Your task to perform on an android device: open chrome and create a bookmark for the current page Image 0: 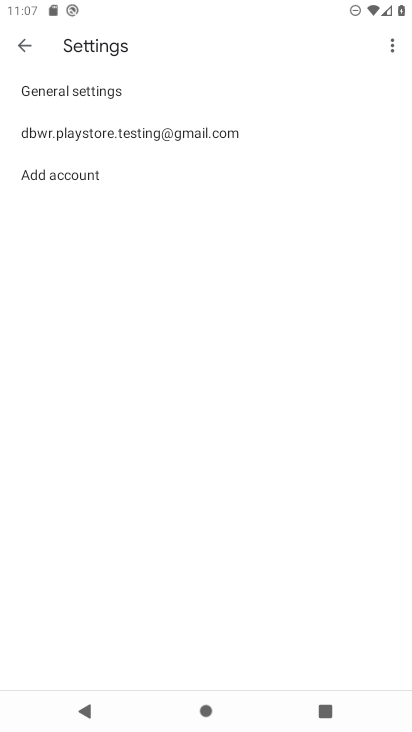
Step 0: press home button
Your task to perform on an android device: open chrome and create a bookmark for the current page Image 1: 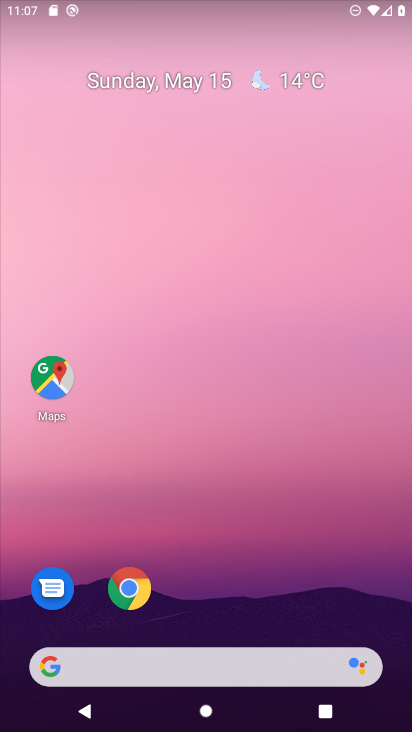
Step 1: drag from (208, 553) to (276, 96)
Your task to perform on an android device: open chrome and create a bookmark for the current page Image 2: 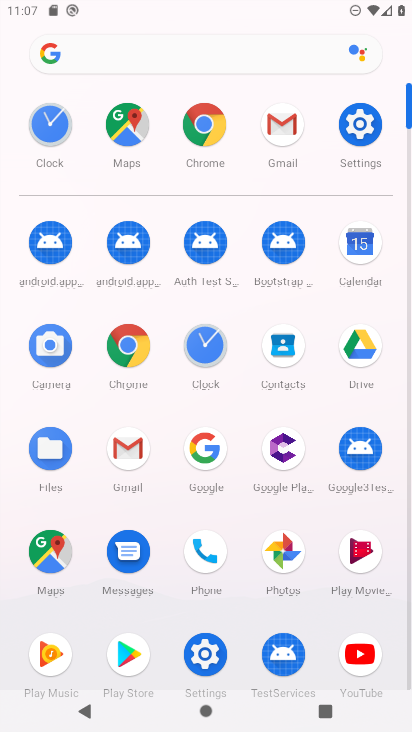
Step 2: click (218, 144)
Your task to perform on an android device: open chrome and create a bookmark for the current page Image 3: 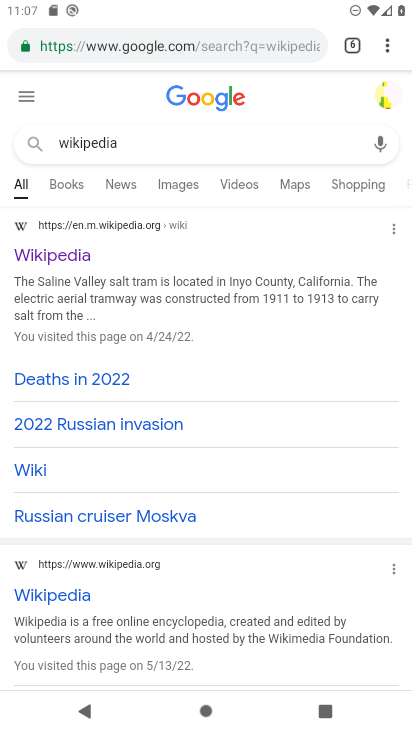
Step 3: click (386, 50)
Your task to perform on an android device: open chrome and create a bookmark for the current page Image 4: 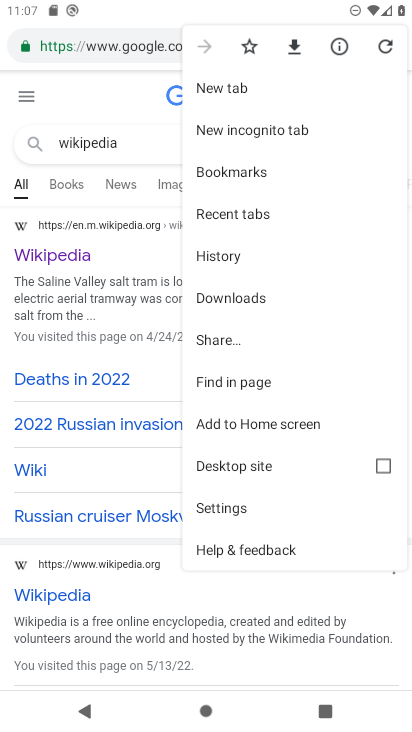
Step 4: click (250, 43)
Your task to perform on an android device: open chrome and create a bookmark for the current page Image 5: 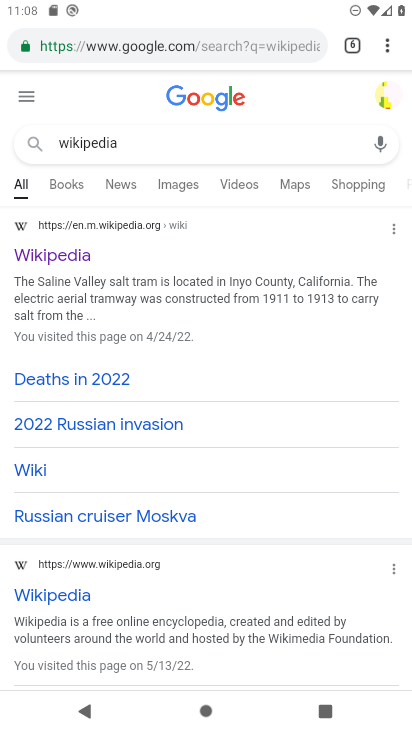
Step 5: task complete